Your task to perform on an android device: install app "Pluto TV - Live TV and Movies" Image 0: 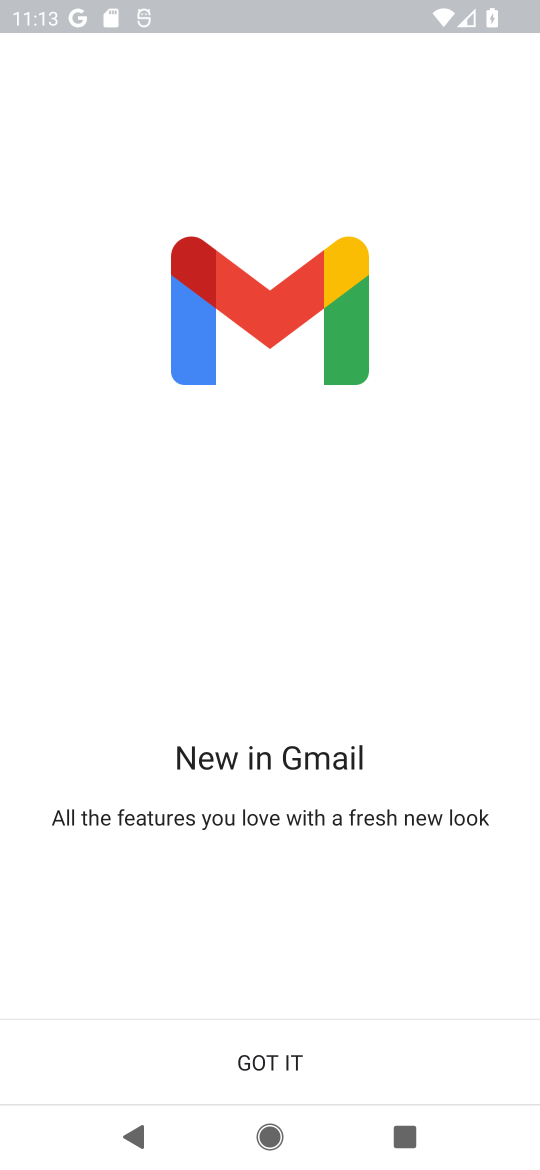
Step 0: press back button
Your task to perform on an android device: install app "Pluto TV - Live TV and Movies" Image 1: 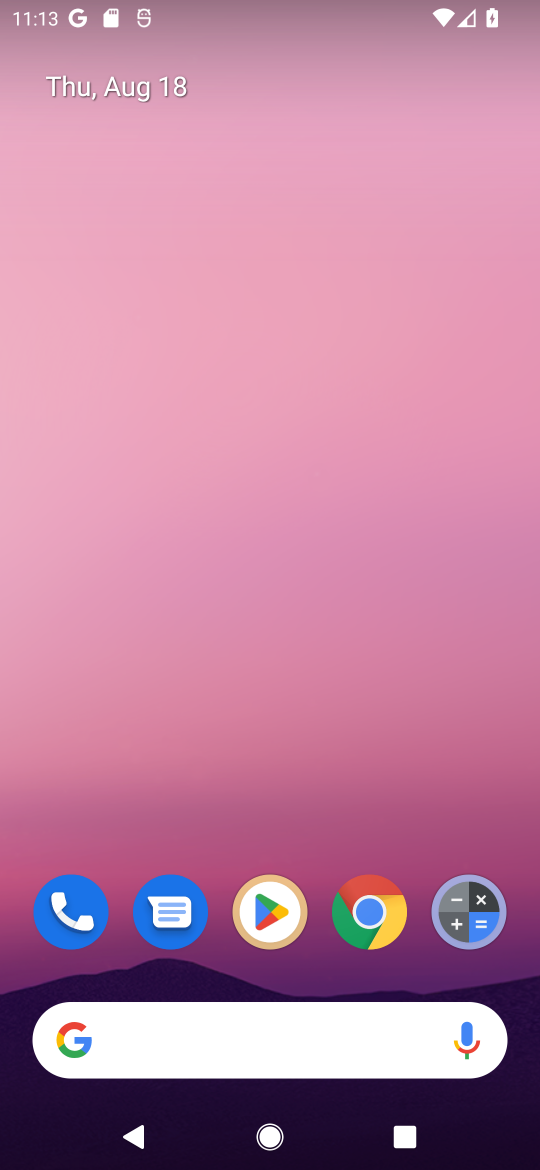
Step 1: click (265, 923)
Your task to perform on an android device: install app "Pluto TV - Live TV and Movies" Image 2: 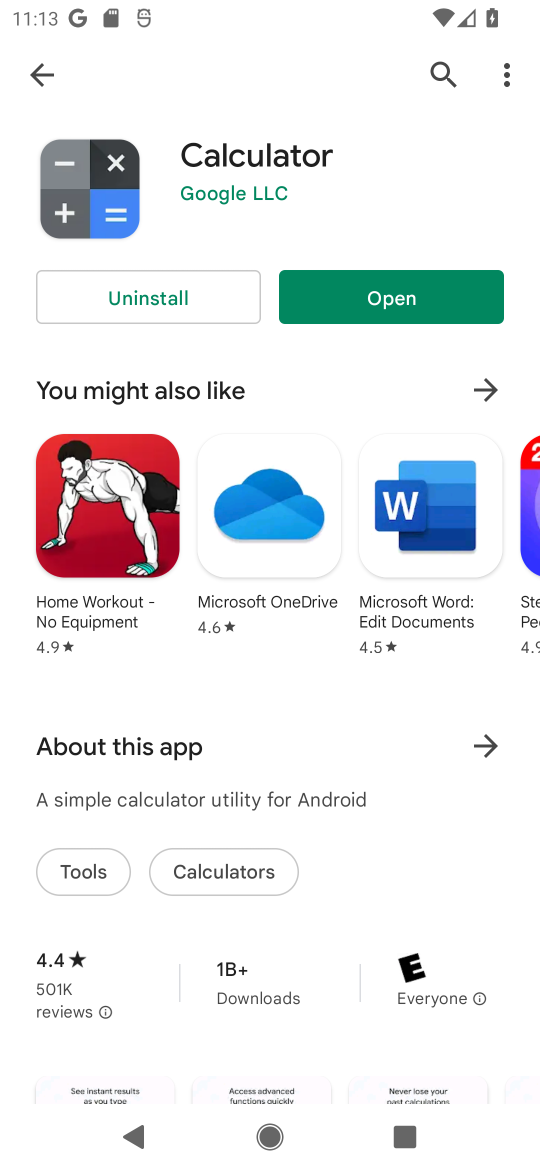
Step 2: click (445, 72)
Your task to perform on an android device: install app "Pluto TV - Live TV and Movies" Image 3: 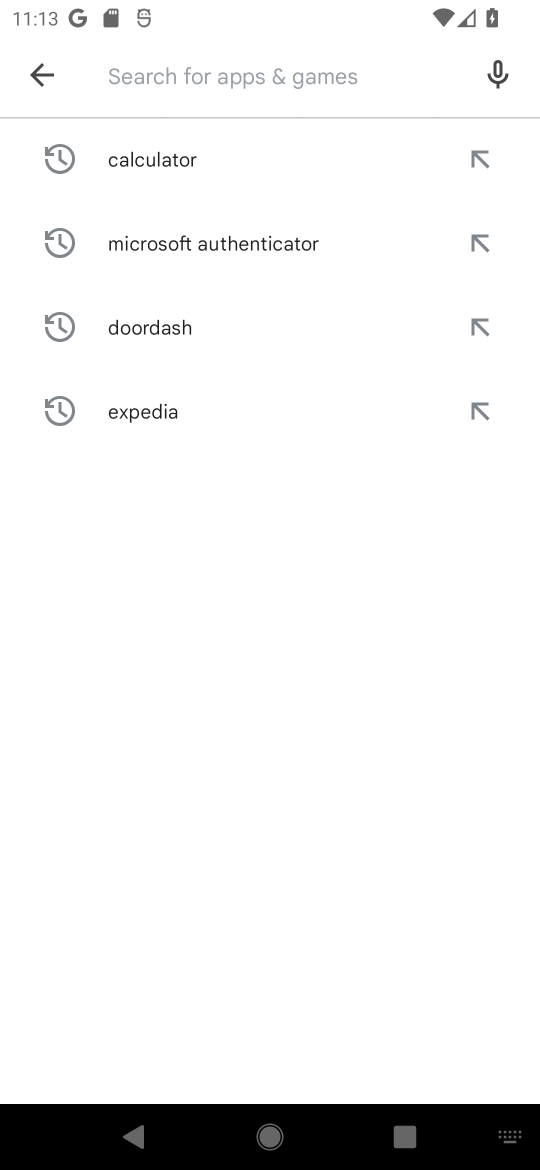
Step 3: click (211, 77)
Your task to perform on an android device: install app "Pluto TV - Live TV and Movies" Image 4: 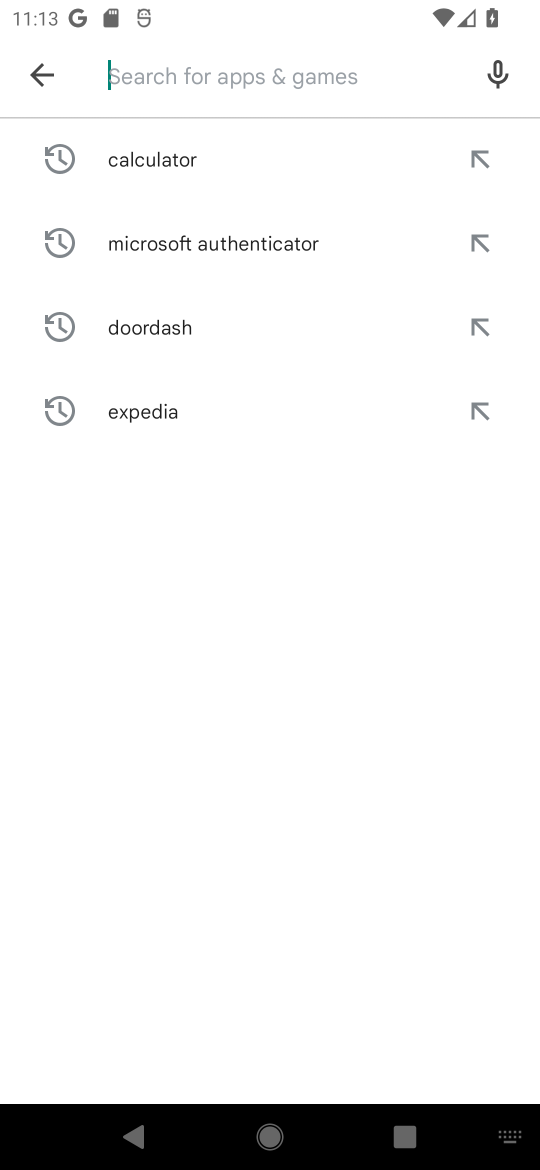
Step 4: type "Pluto TV"
Your task to perform on an android device: install app "Pluto TV - Live TV and Movies" Image 5: 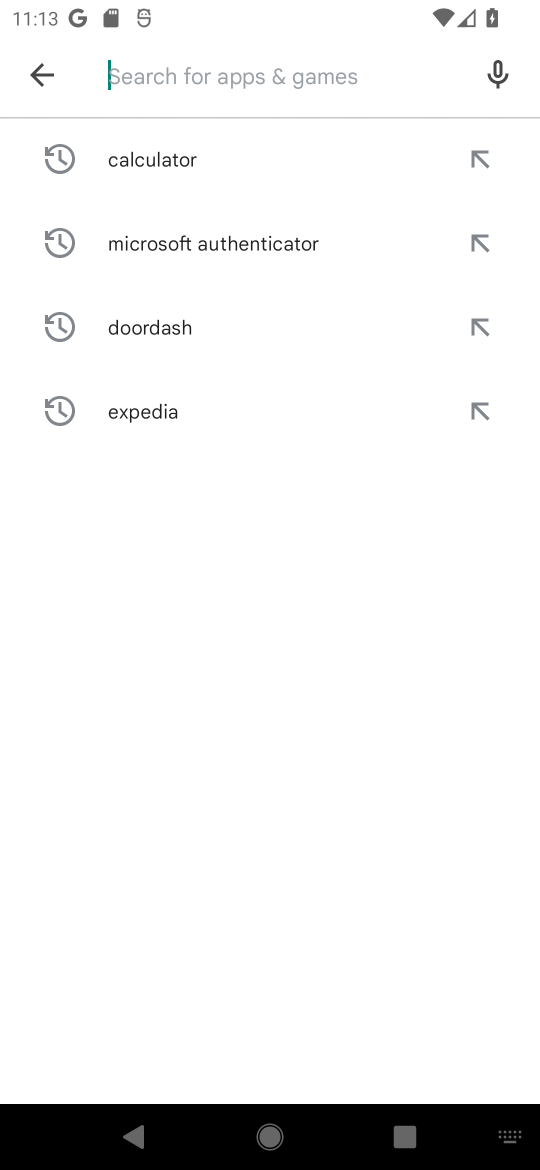
Step 5: click (276, 736)
Your task to perform on an android device: install app "Pluto TV - Live TV and Movies" Image 6: 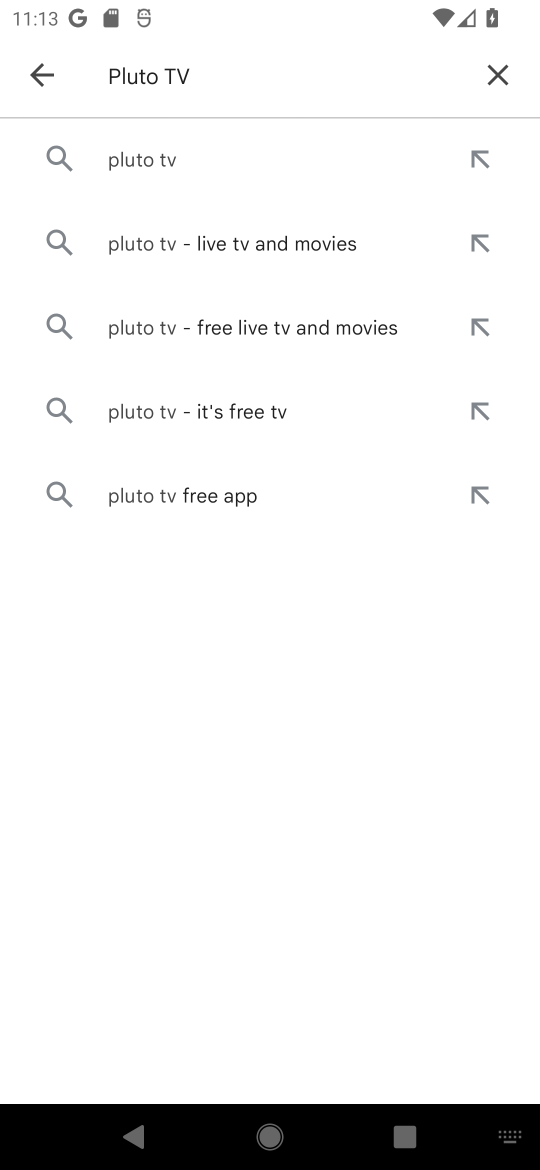
Step 6: click (167, 174)
Your task to perform on an android device: install app "Pluto TV - Live TV and Movies" Image 7: 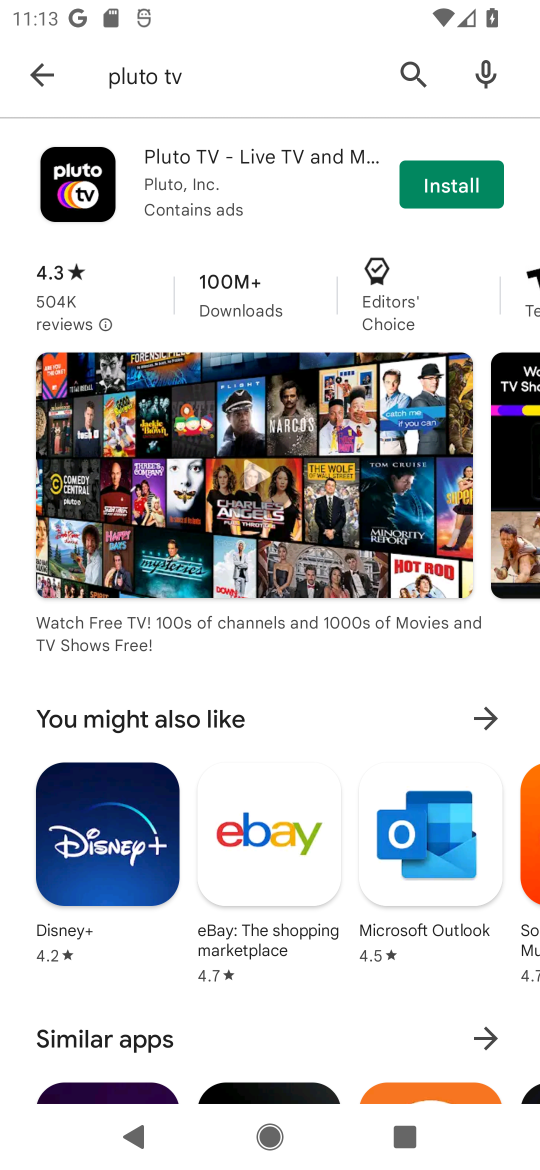
Step 7: click (453, 192)
Your task to perform on an android device: install app "Pluto TV - Live TV and Movies" Image 8: 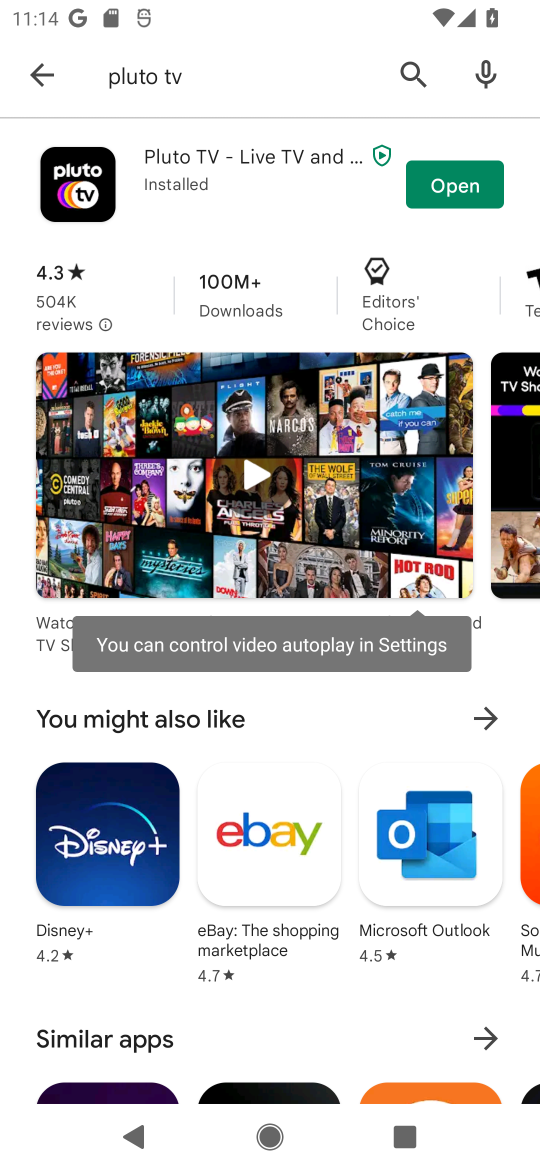
Step 8: task complete